Your task to perform on an android device: open a new tab in the chrome app Image 0: 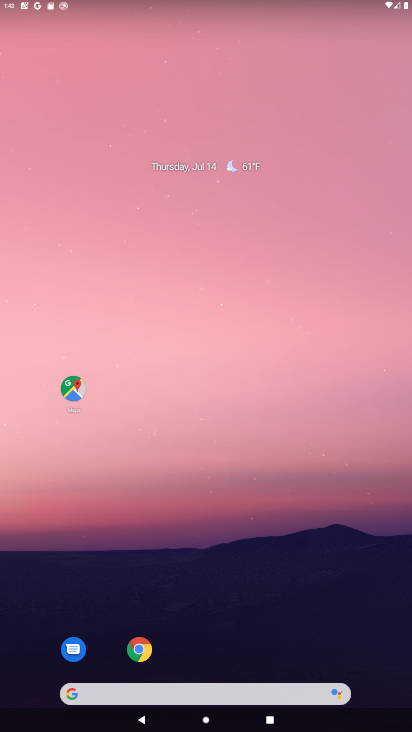
Step 0: press home button
Your task to perform on an android device: open a new tab in the chrome app Image 1: 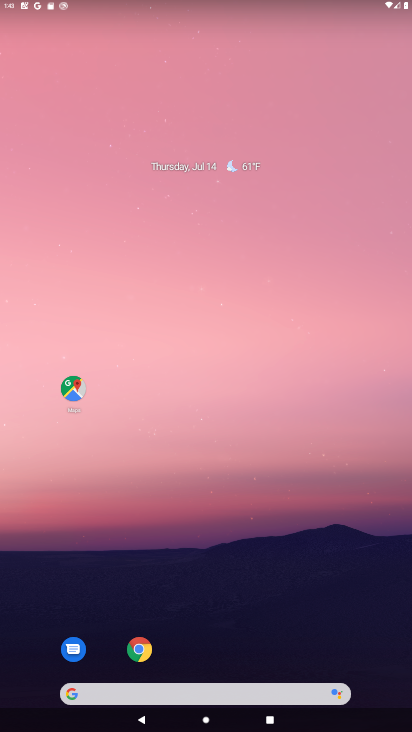
Step 1: drag from (274, 695) to (247, 134)
Your task to perform on an android device: open a new tab in the chrome app Image 2: 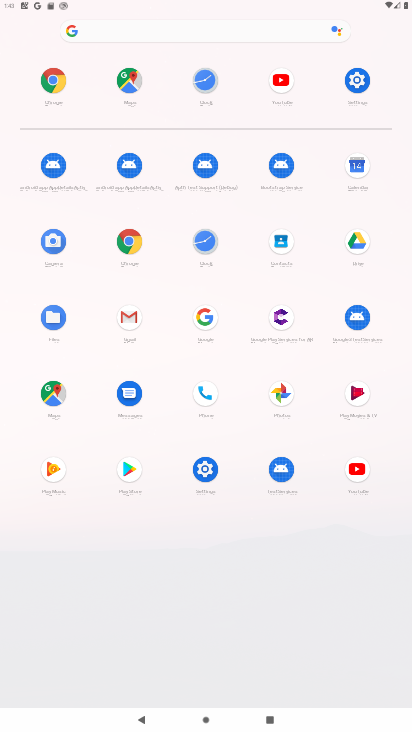
Step 2: click (131, 243)
Your task to perform on an android device: open a new tab in the chrome app Image 3: 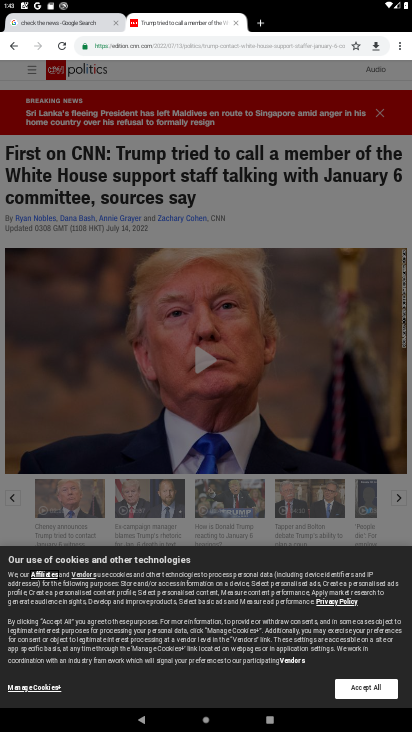
Step 3: drag from (393, 48) to (332, 49)
Your task to perform on an android device: open a new tab in the chrome app Image 4: 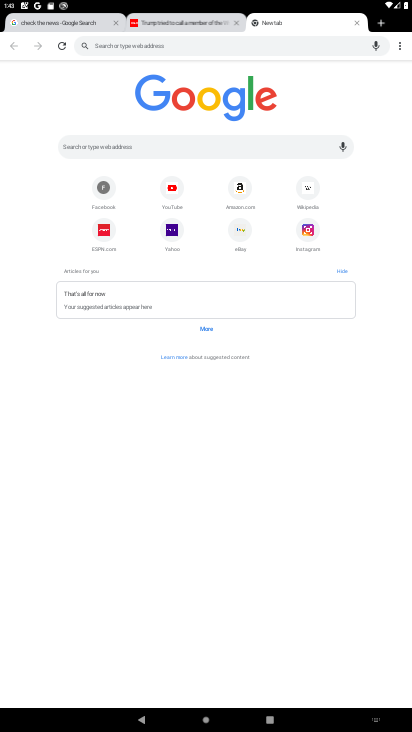
Step 4: click (387, 80)
Your task to perform on an android device: open a new tab in the chrome app Image 5: 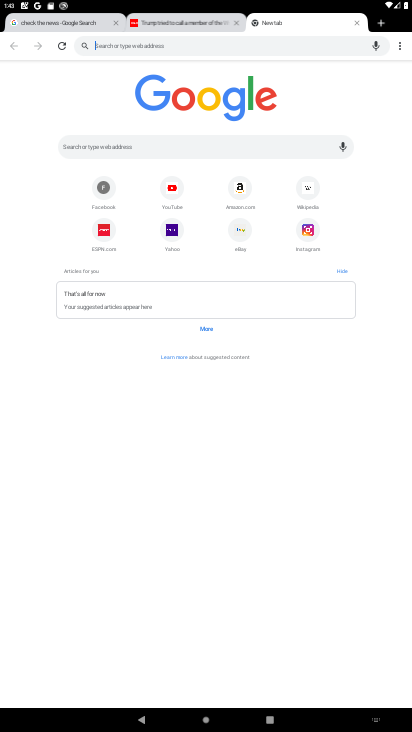
Step 5: drag from (403, 42) to (352, 57)
Your task to perform on an android device: open a new tab in the chrome app Image 6: 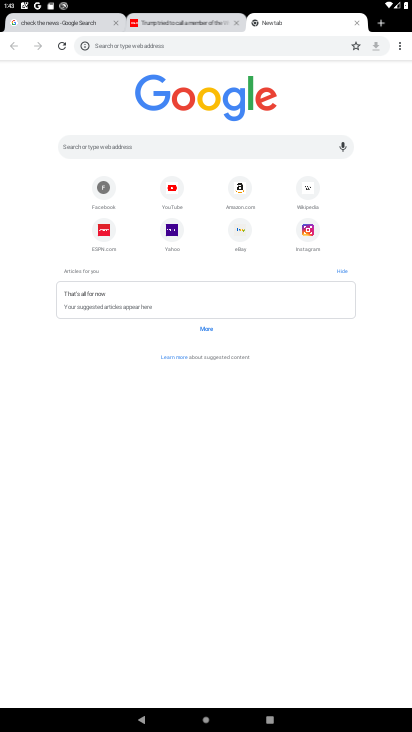
Step 6: click (402, 43)
Your task to perform on an android device: open a new tab in the chrome app Image 7: 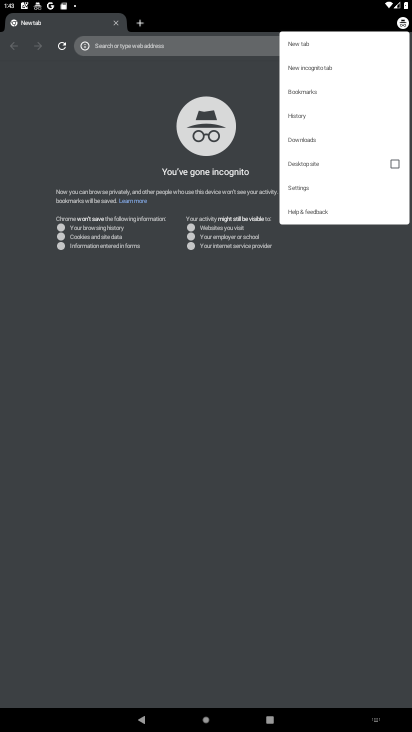
Step 7: click (301, 40)
Your task to perform on an android device: open a new tab in the chrome app Image 8: 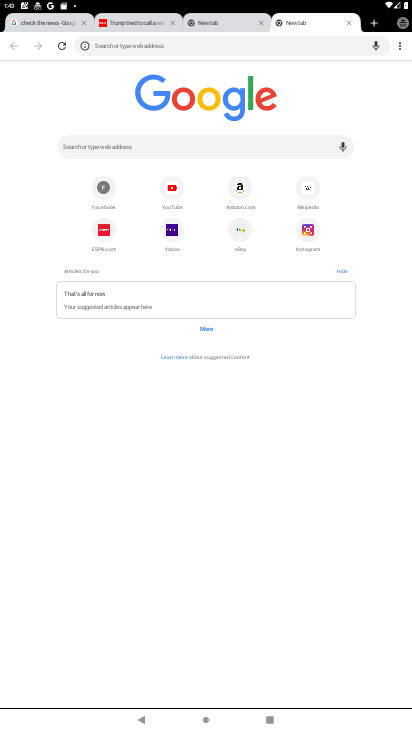
Step 8: task complete